Your task to perform on an android device: turn off sleep mode Image 0: 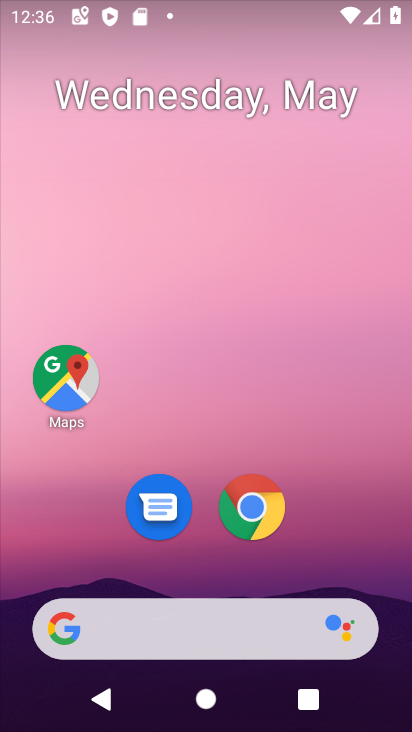
Step 0: drag from (314, 554) to (321, 124)
Your task to perform on an android device: turn off sleep mode Image 1: 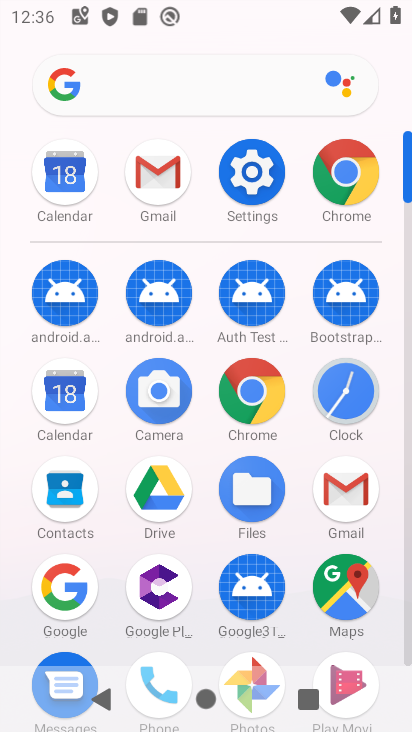
Step 1: click (242, 173)
Your task to perform on an android device: turn off sleep mode Image 2: 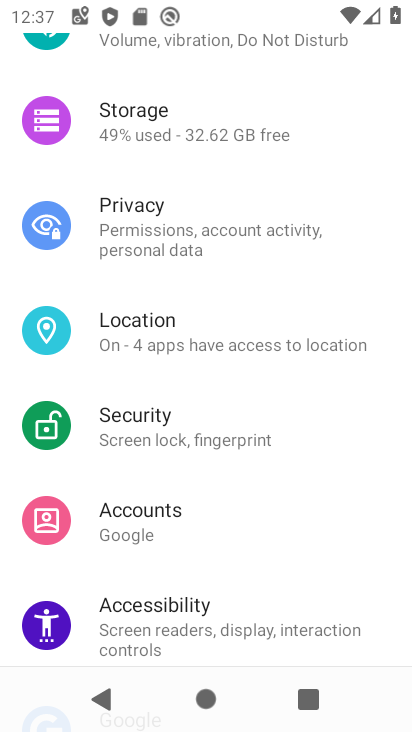
Step 2: task complete